Your task to perform on an android device: toggle translation in the chrome app Image 0: 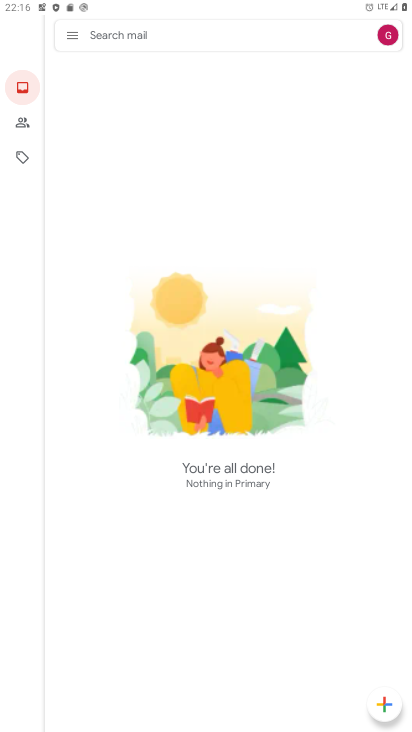
Step 0: press home button
Your task to perform on an android device: toggle translation in the chrome app Image 1: 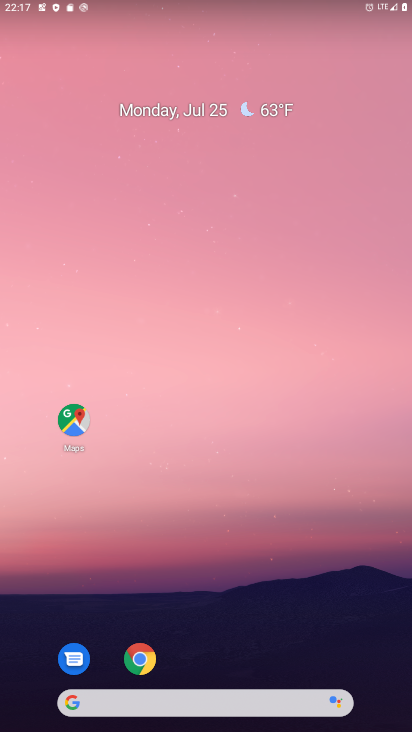
Step 1: click (142, 660)
Your task to perform on an android device: toggle translation in the chrome app Image 2: 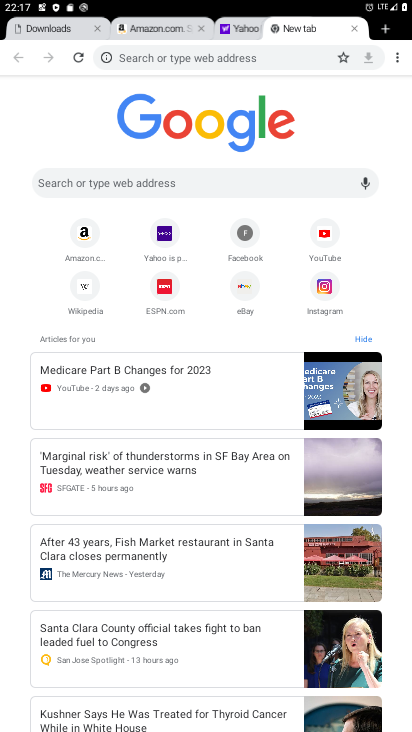
Step 2: click (396, 59)
Your task to perform on an android device: toggle translation in the chrome app Image 3: 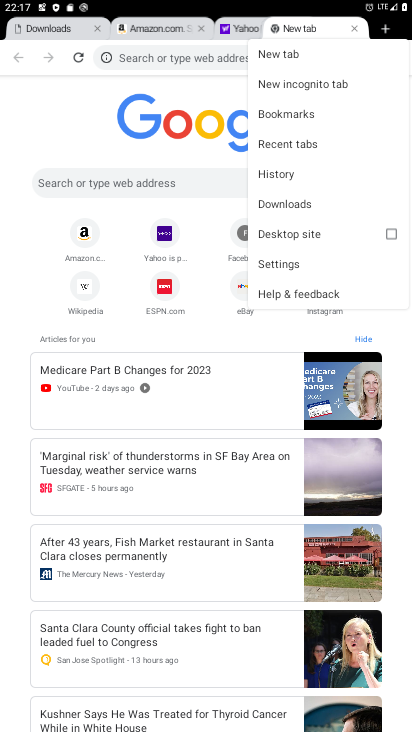
Step 3: click (285, 261)
Your task to perform on an android device: toggle translation in the chrome app Image 4: 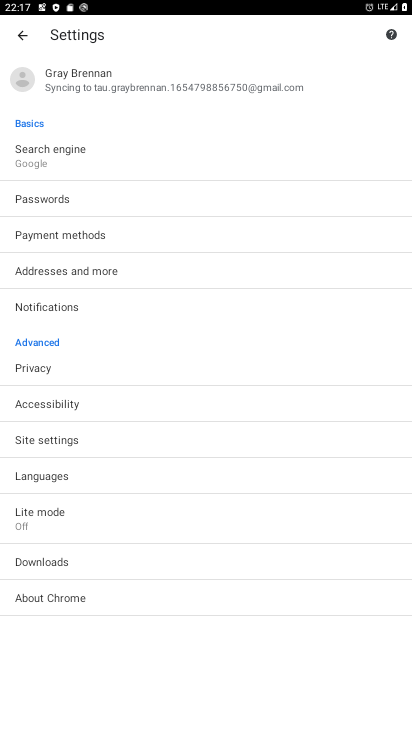
Step 4: click (50, 474)
Your task to perform on an android device: toggle translation in the chrome app Image 5: 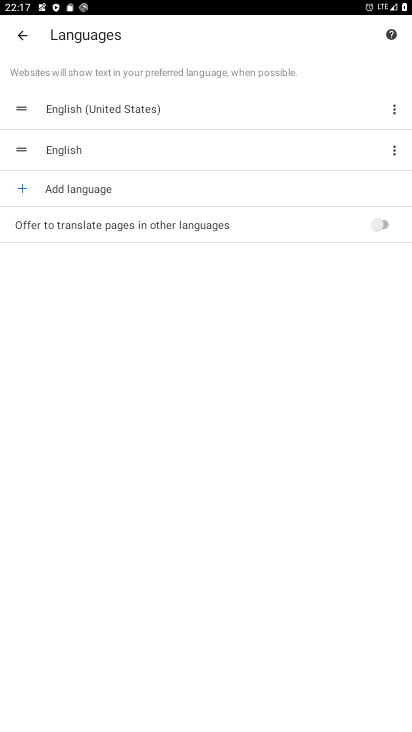
Step 5: click (384, 221)
Your task to perform on an android device: toggle translation in the chrome app Image 6: 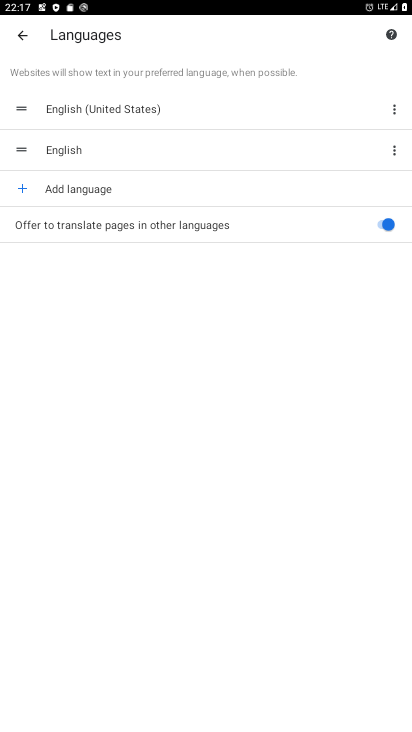
Step 6: task complete